Your task to perform on an android device: change the clock display to analog Image 0: 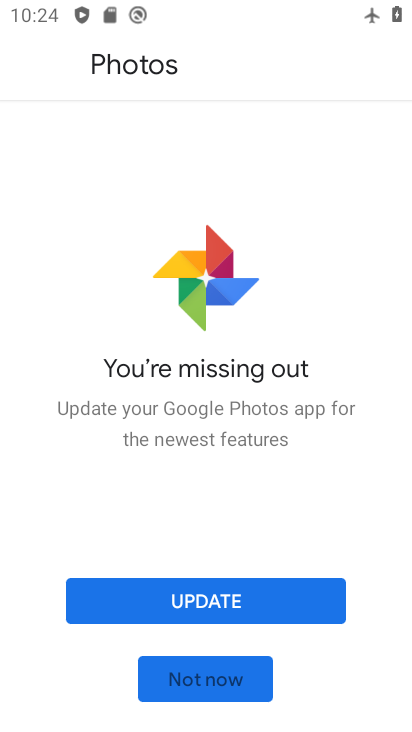
Step 0: click (239, 594)
Your task to perform on an android device: change the clock display to analog Image 1: 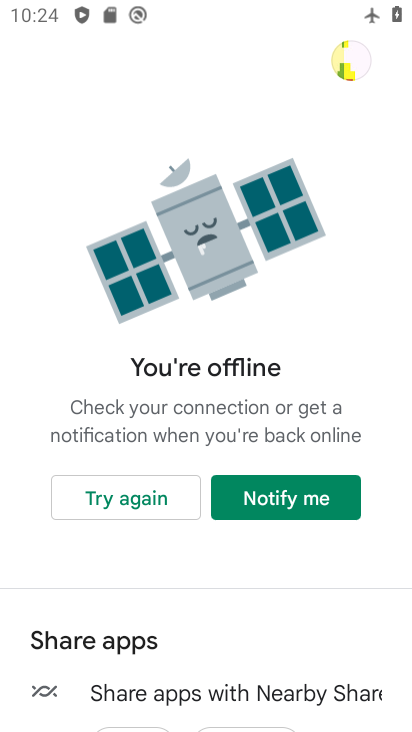
Step 1: click (143, 500)
Your task to perform on an android device: change the clock display to analog Image 2: 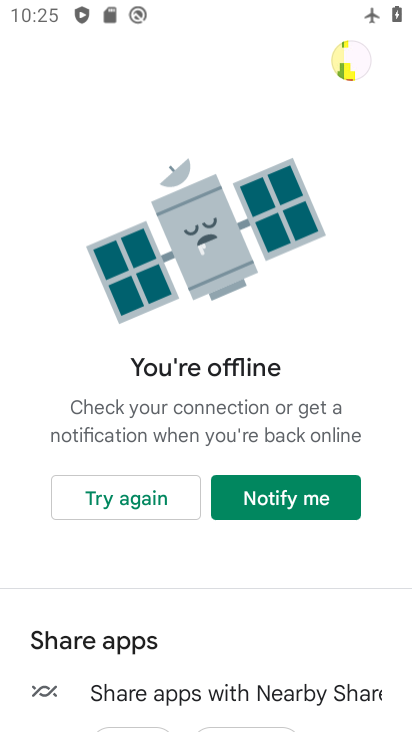
Step 2: task complete